Your task to perform on an android device: open wifi settings Image 0: 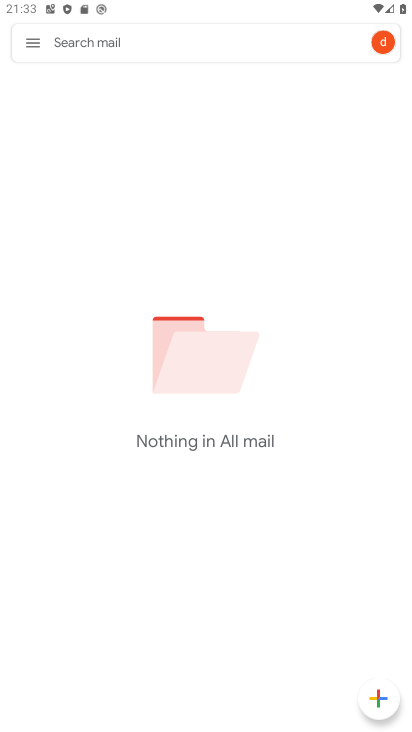
Step 0: drag from (105, 38) to (79, 528)
Your task to perform on an android device: open wifi settings Image 1: 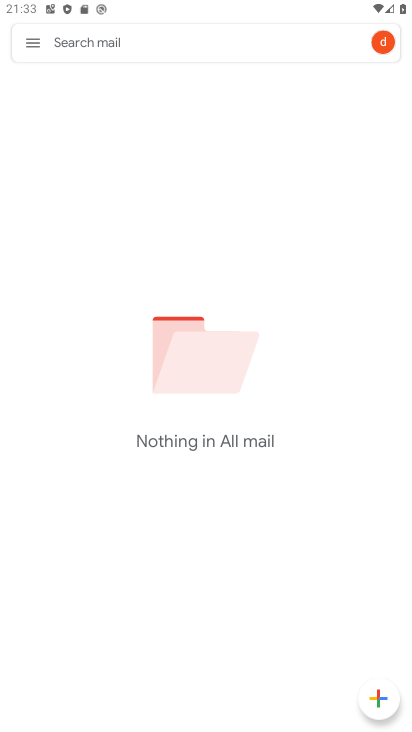
Step 1: drag from (47, 5) to (109, 581)
Your task to perform on an android device: open wifi settings Image 2: 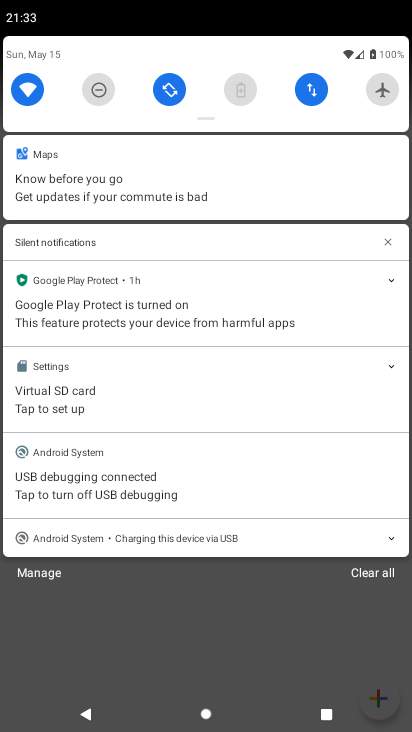
Step 2: click (25, 83)
Your task to perform on an android device: open wifi settings Image 3: 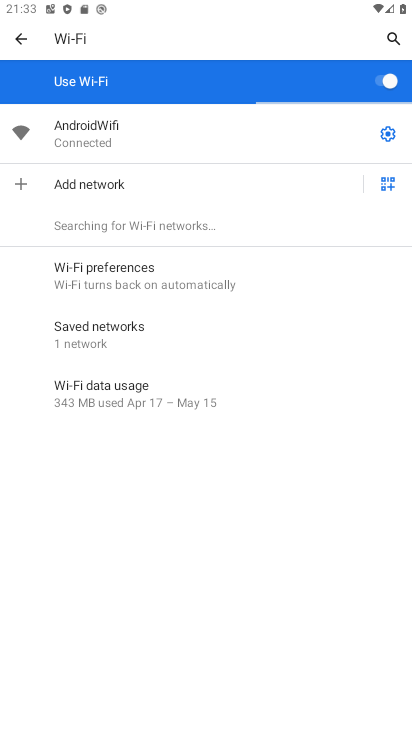
Step 3: task complete